Your task to perform on an android device: install app "DoorDash - Dasher" Image 0: 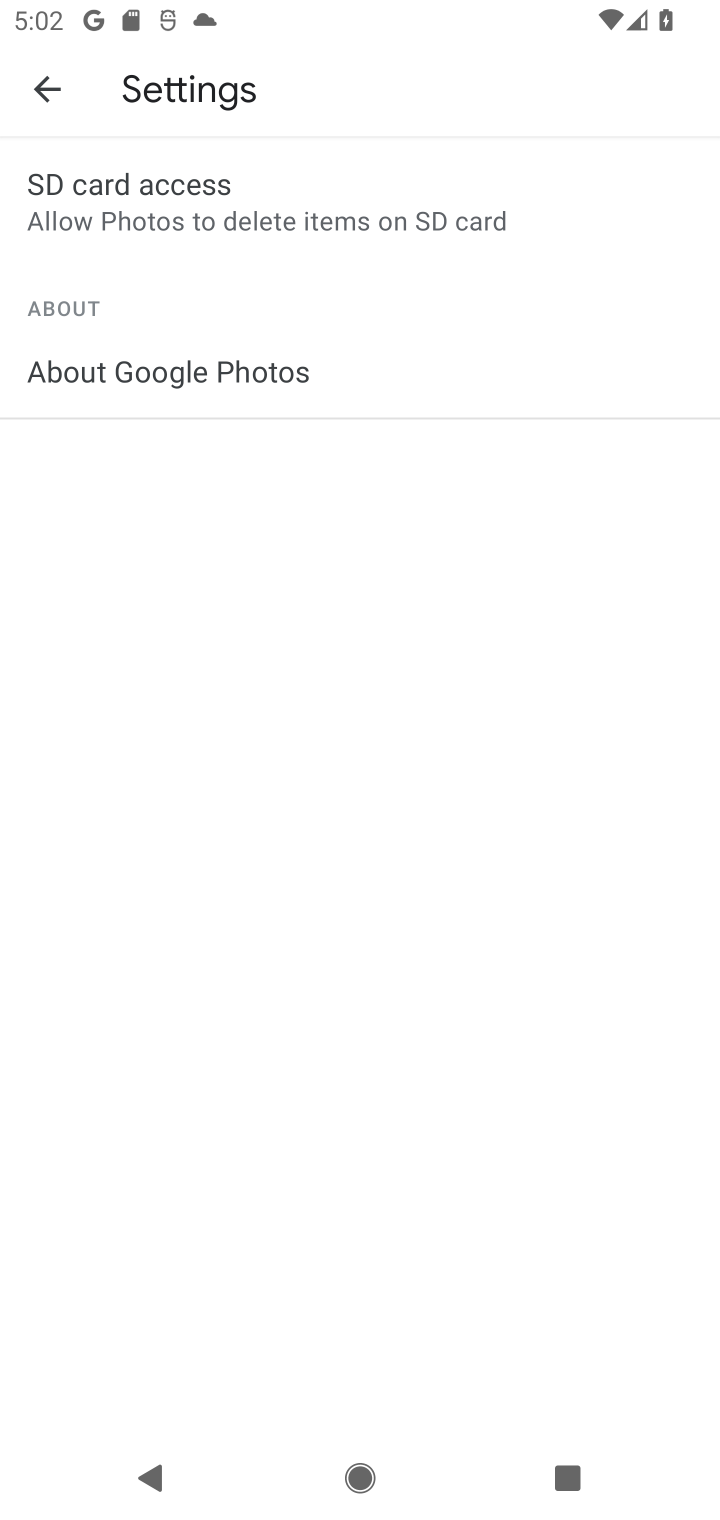
Step 0: press home button
Your task to perform on an android device: install app "DoorDash - Dasher" Image 1: 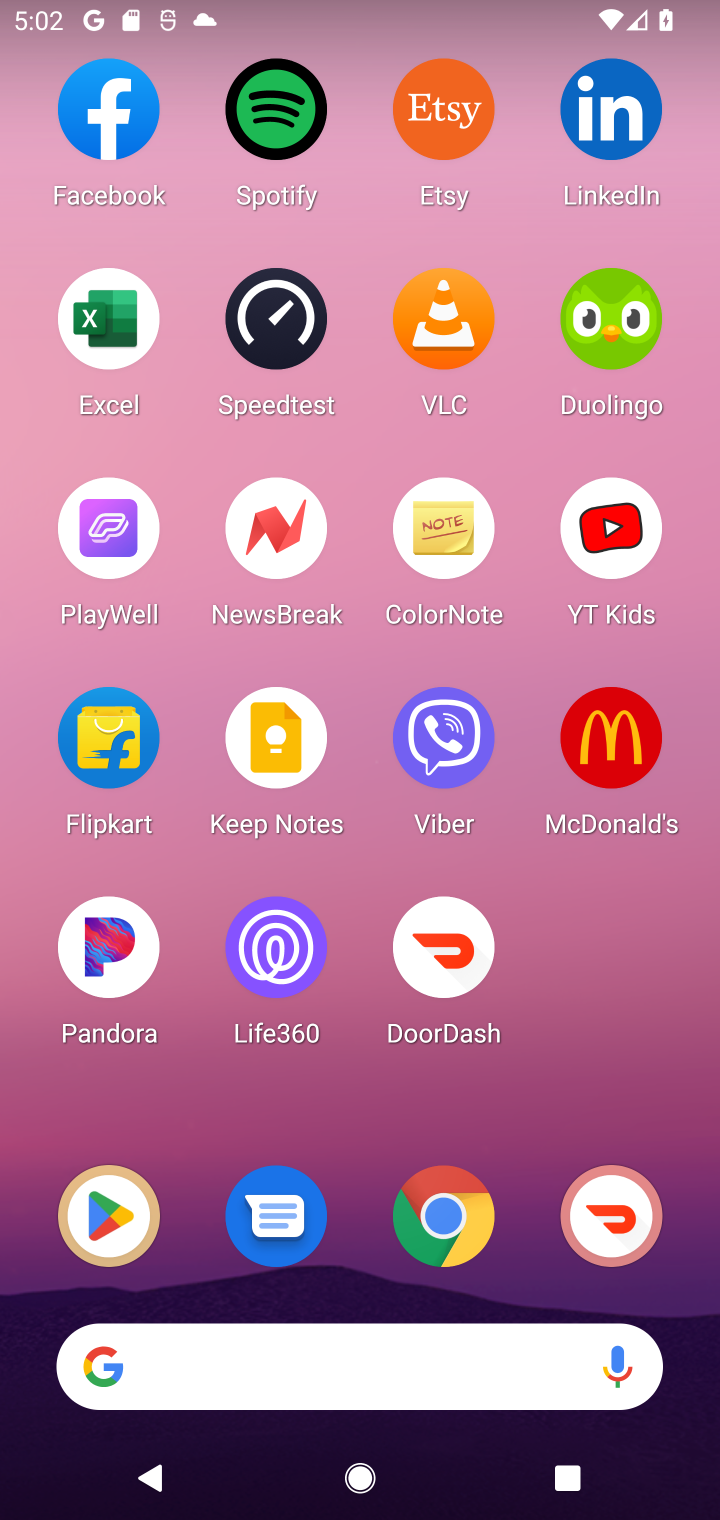
Step 1: click (128, 1213)
Your task to perform on an android device: install app "DoorDash - Dasher" Image 2: 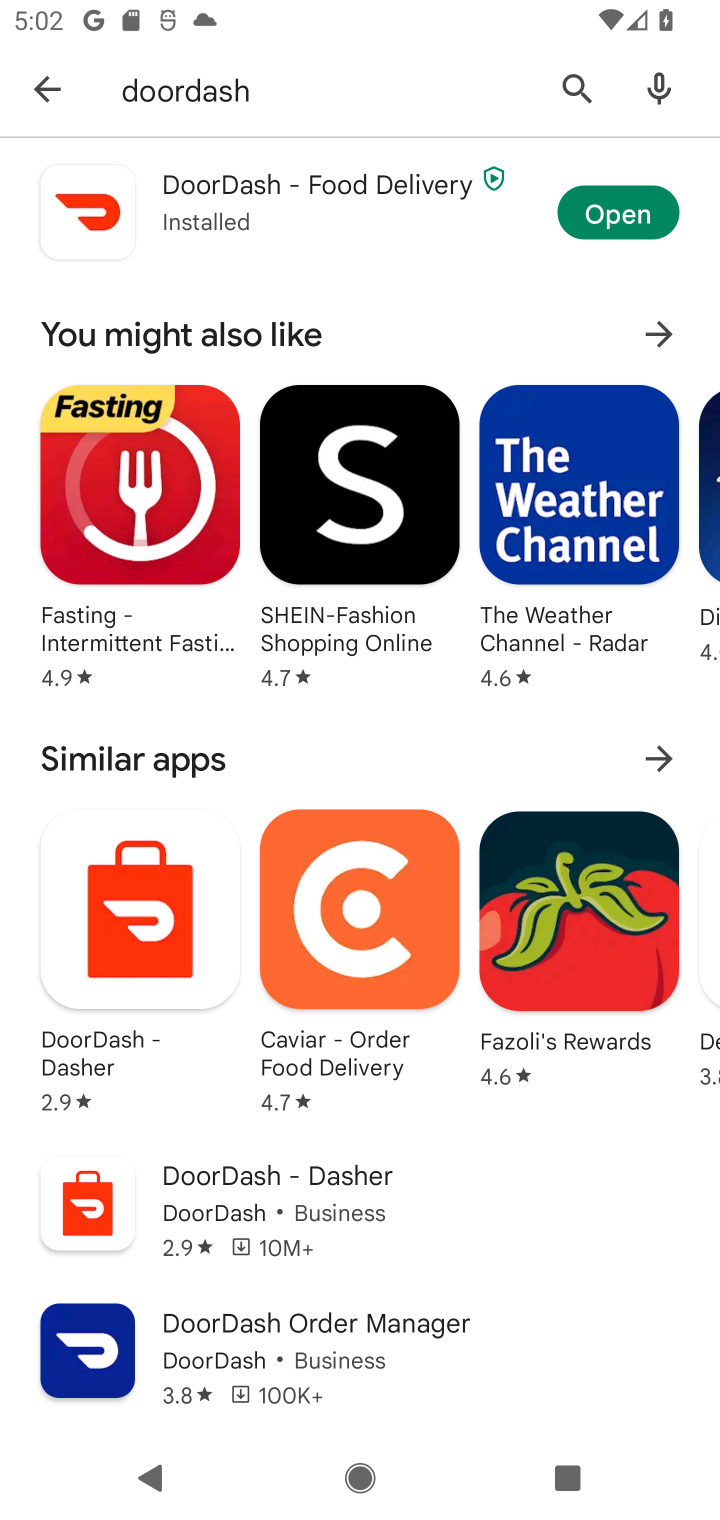
Step 2: click (592, 92)
Your task to perform on an android device: install app "DoorDash - Dasher" Image 3: 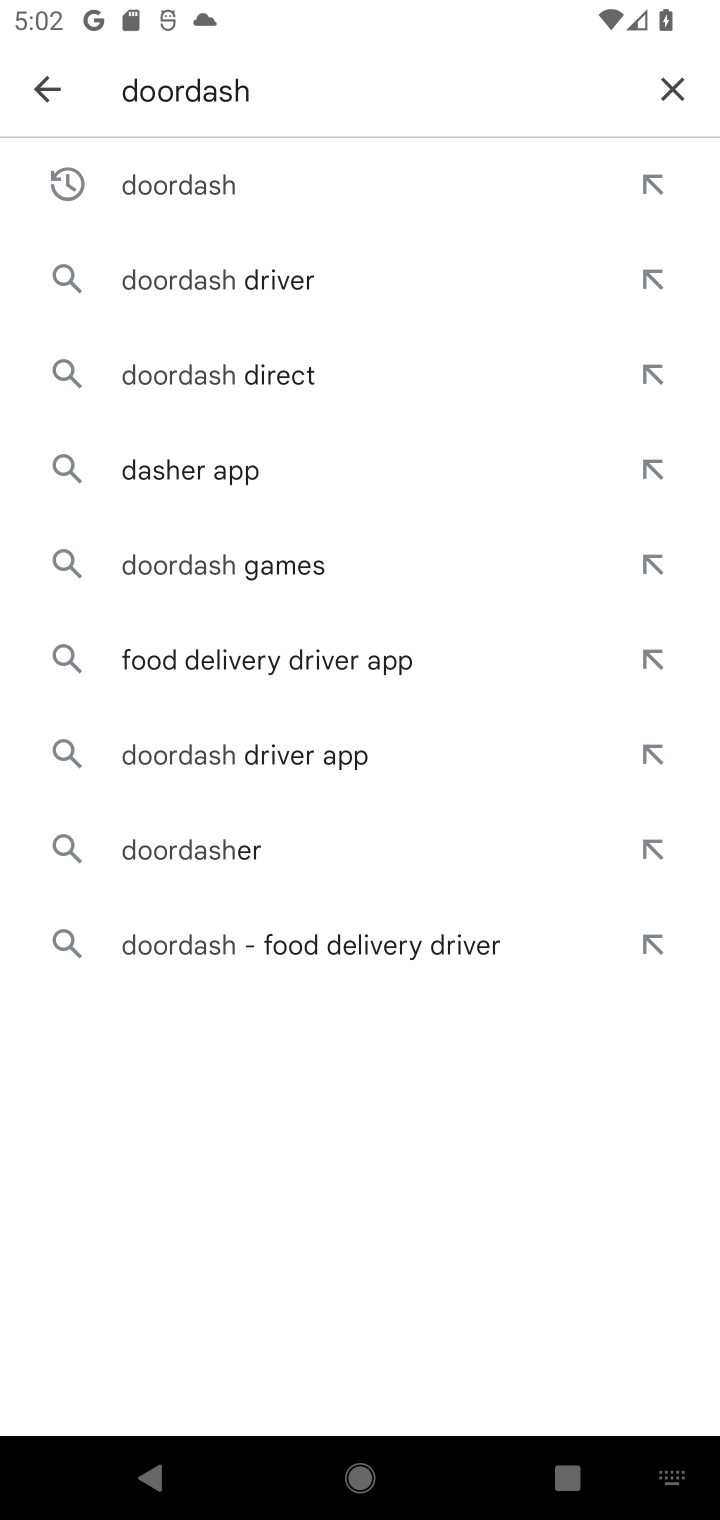
Step 3: click (673, 92)
Your task to perform on an android device: install app "DoorDash - Dasher" Image 4: 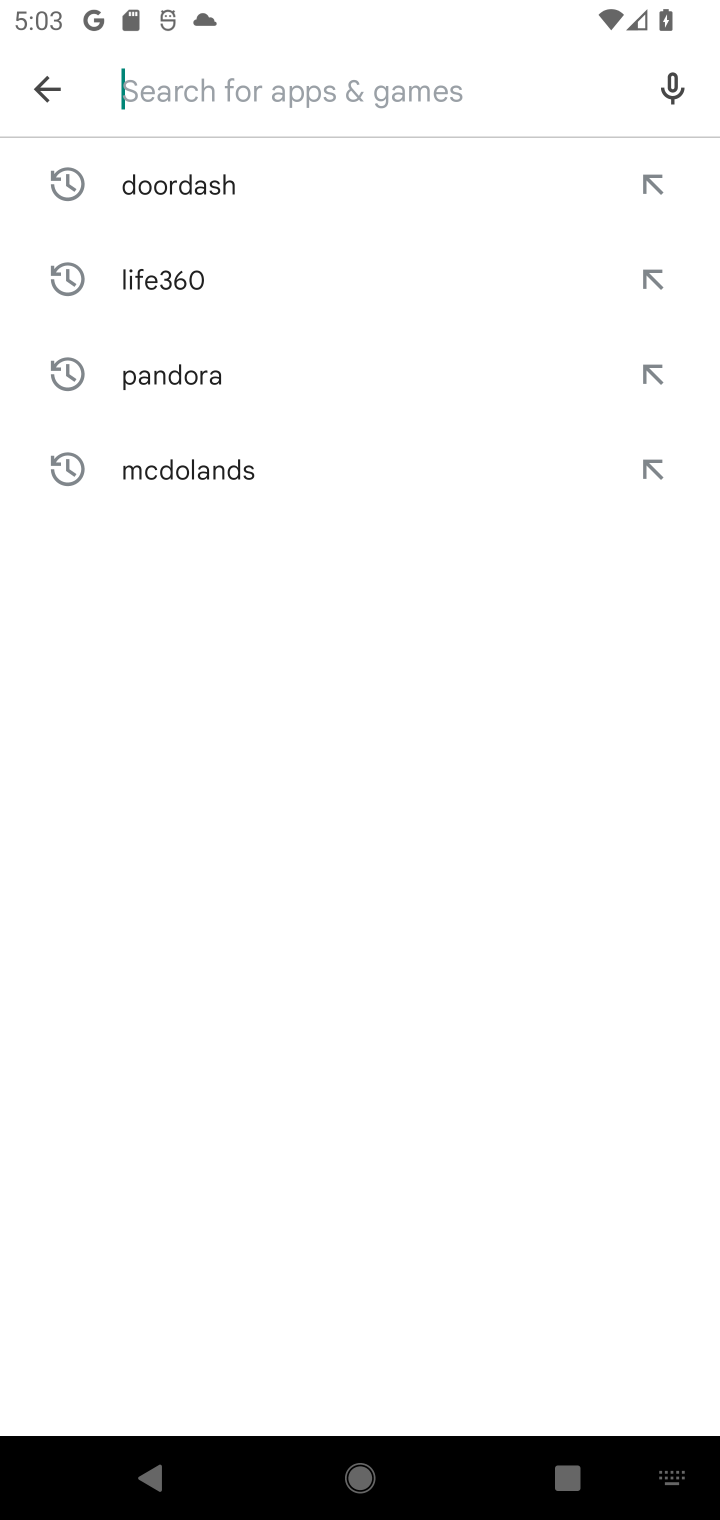
Step 4: type "doo"
Your task to perform on an android device: install app "DoorDash - Dasher" Image 5: 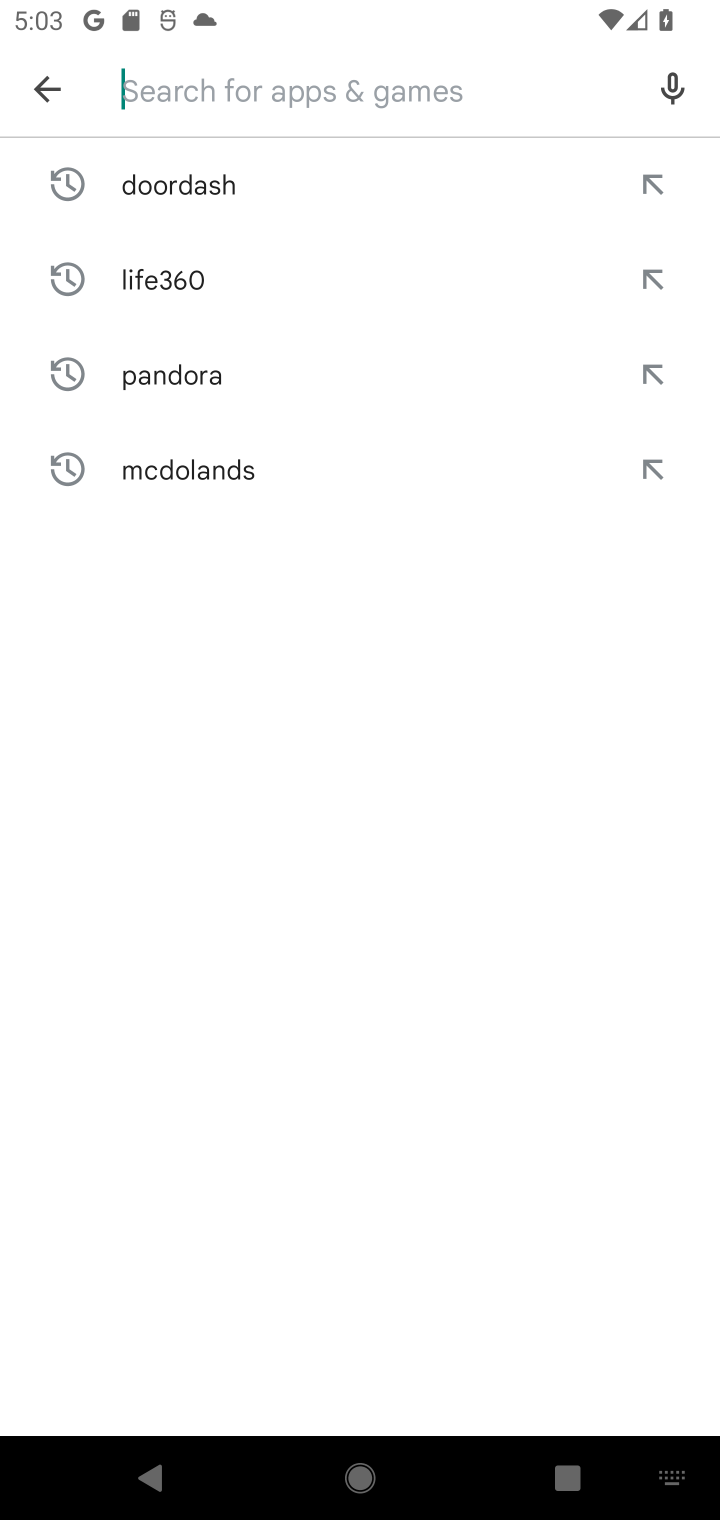
Step 5: click (140, 183)
Your task to perform on an android device: install app "DoorDash - Dasher" Image 6: 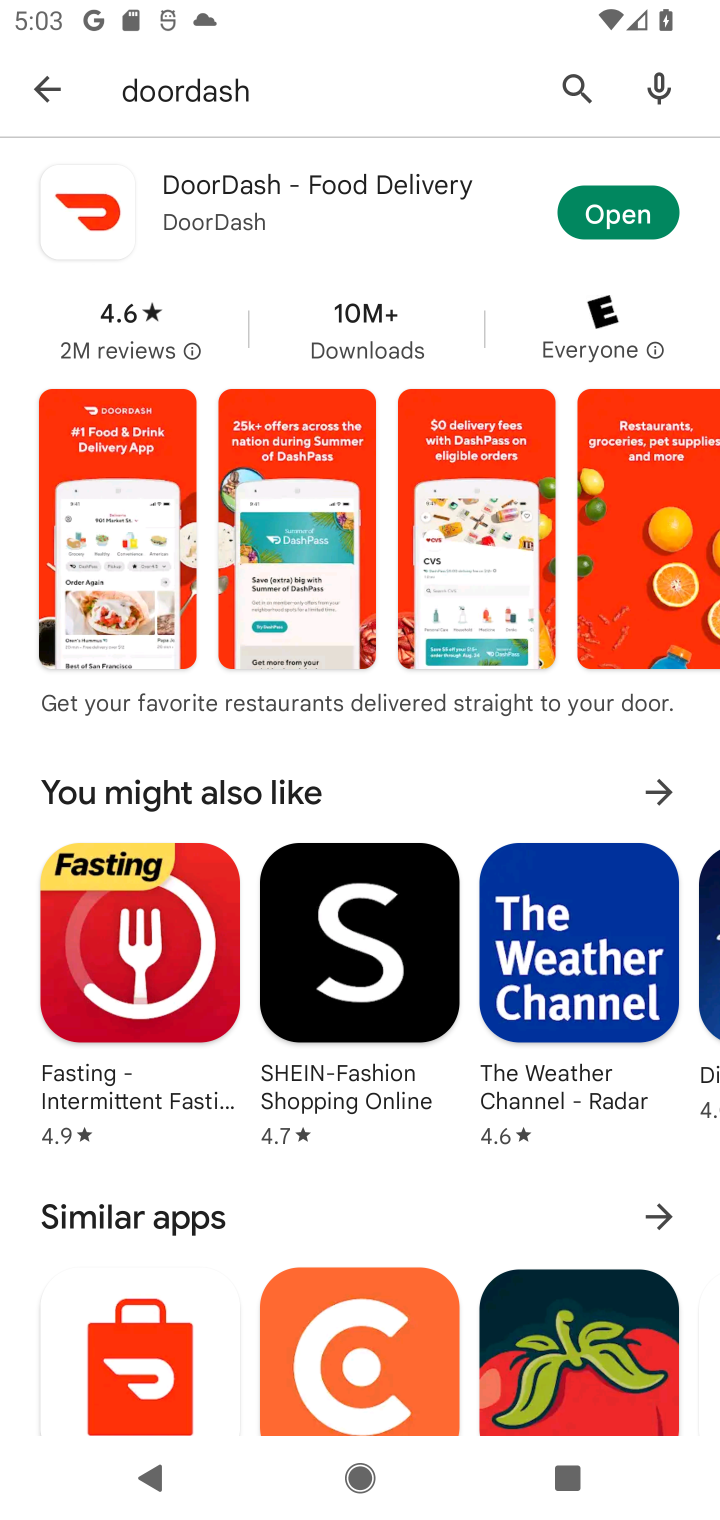
Step 6: task complete